Your task to perform on an android device: Show me the alarms in the clock app Image 0: 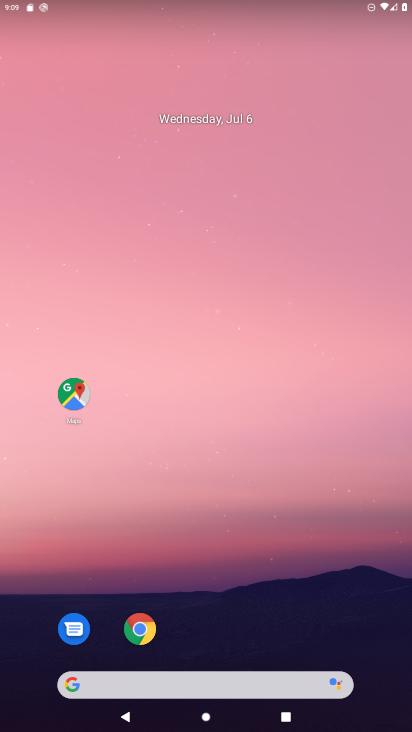
Step 0: drag from (334, 692) to (379, 46)
Your task to perform on an android device: Show me the alarms in the clock app Image 1: 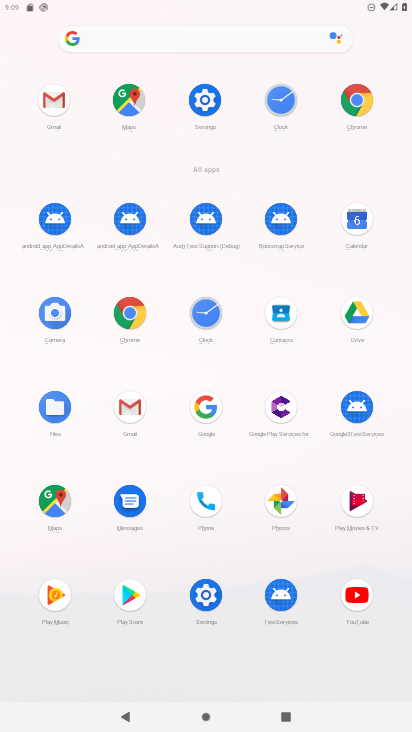
Step 1: click (201, 317)
Your task to perform on an android device: Show me the alarms in the clock app Image 2: 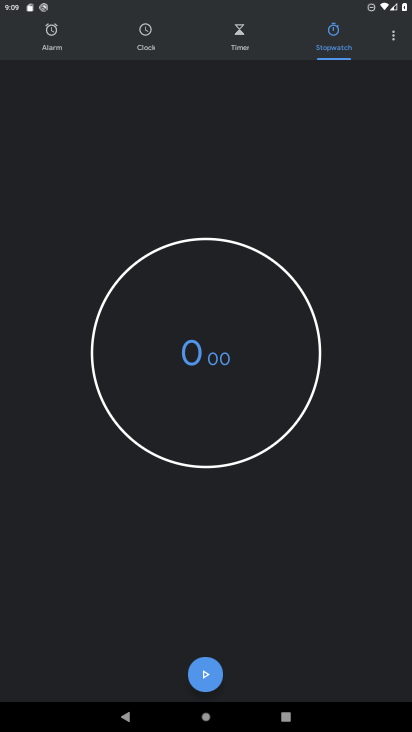
Step 2: click (70, 38)
Your task to perform on an android device: Show me the alarms in the clock app Image 3: 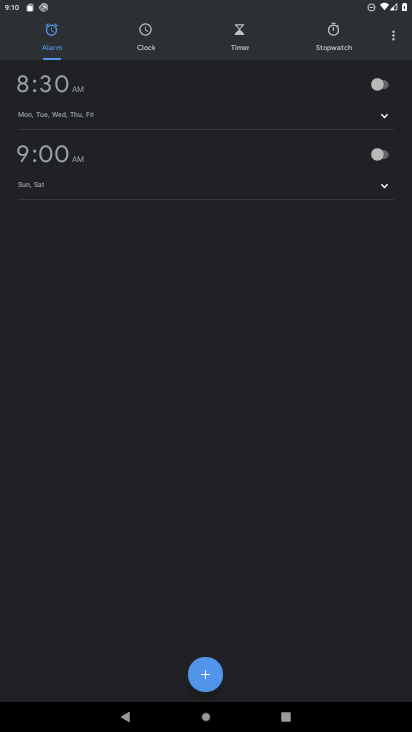
Step 3: task complete